Your task to perform on an android device: change keyboard looks Image 0: 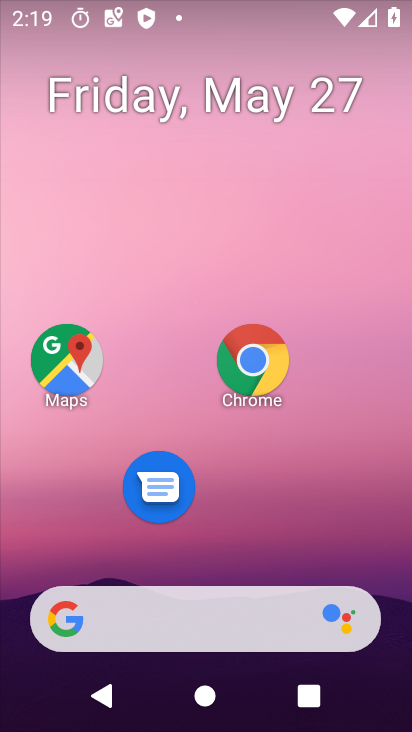
Step 0: drag from (247, 527) to (275, 104)
Your task to perform on an android device: change keyboard looks Image 1: 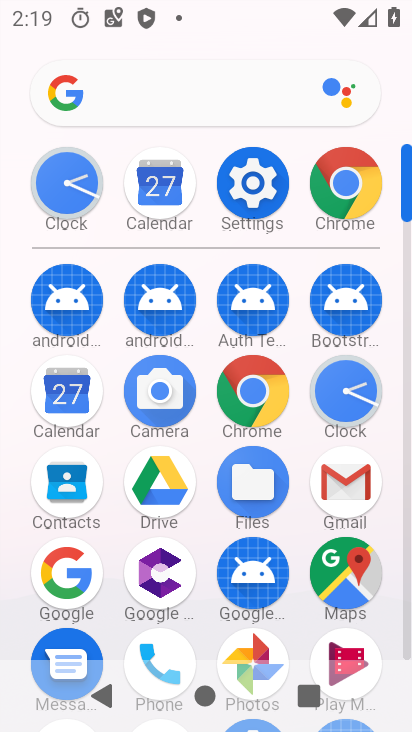
Step 1: click (258, 174)
Your task to perform on an android device: change keyboard looks Image 2: 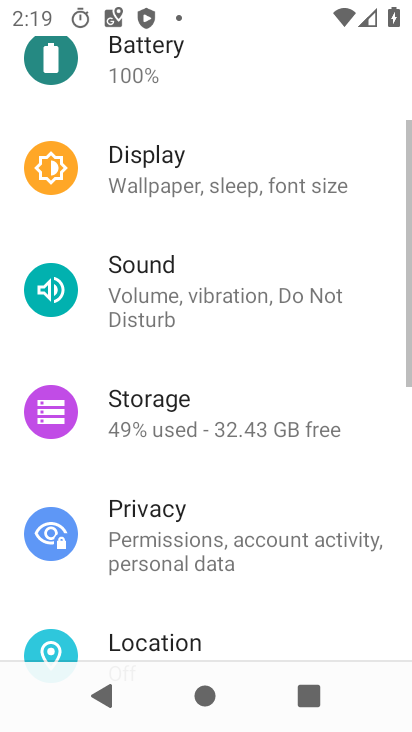
Step 2: drag from (267, 558) to (260, 84)
Your task to perform on an android device: change keyboard looks Image 3: 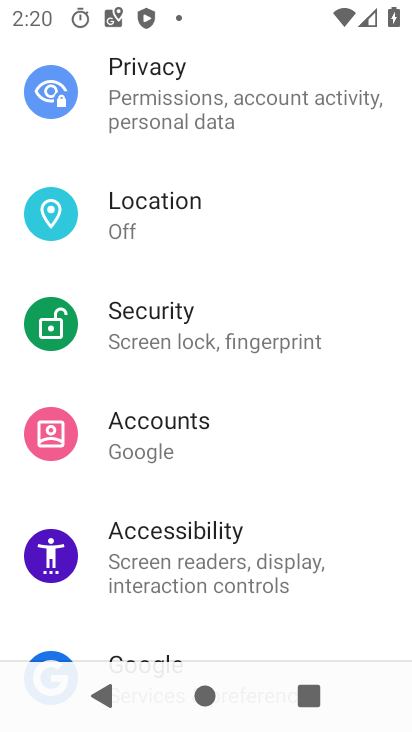
Step 3: drag from (211, 594) to (268, 276)
Your task to perform on an android device: change keyboard looks Image 4: 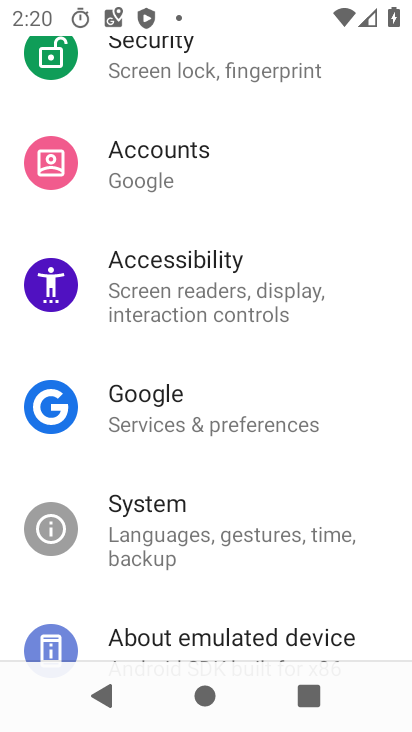
Step 4: click (210, 504)
Your task to perform on an android device: change keyboard looks Image 5: 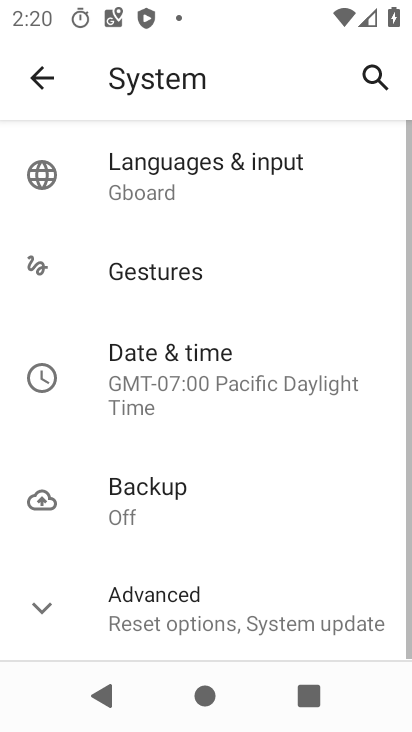
Step 5: drag from (284, 503) to (324, 237)
Your task to perform on an android device: change keyboard looks Image 6: 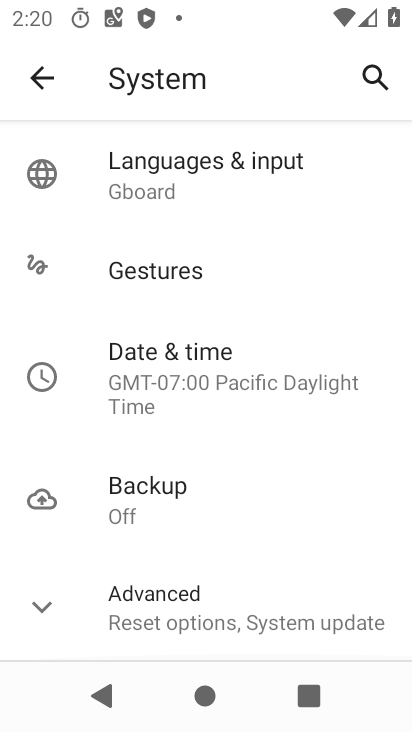
Step 6: click (272, 176)
Your task to perform on an android device: change keyboard looks Image 7: 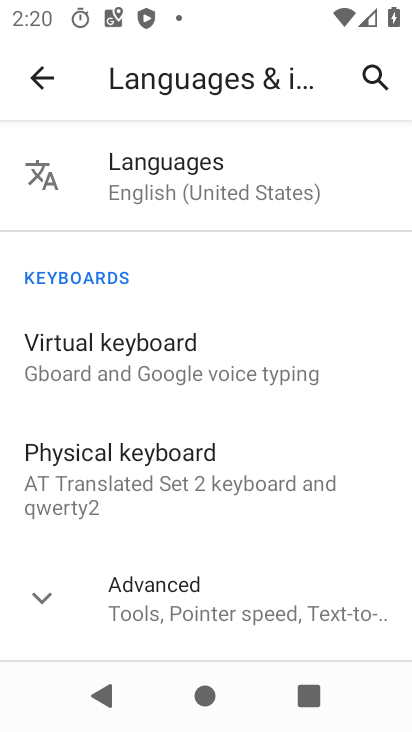
Step 7: click (120, 360)
Your task to perform on an android device: change keyboard looks Image 8: 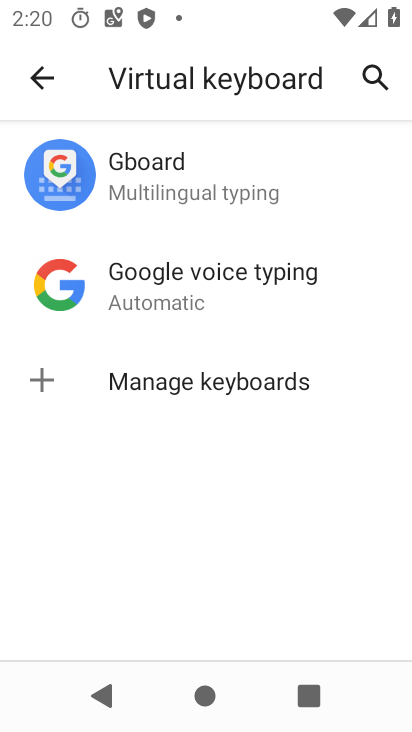
Step 8: click (163, 180)
Your task to perform on an android device: change keyboard looks Image 9: 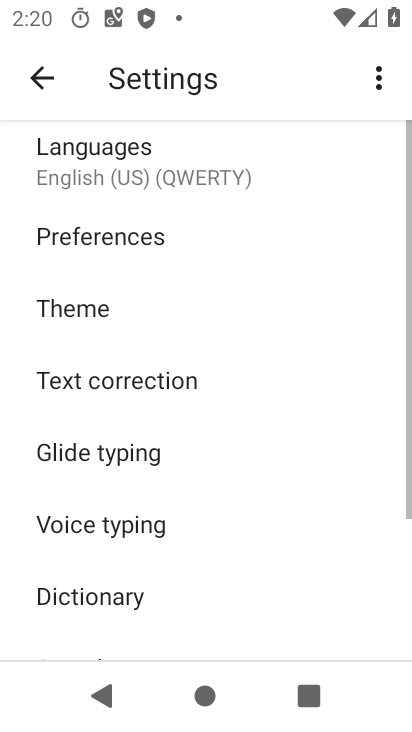
Step 9: click (114, 325)
Your task to perform on an android device: change keyboard looks Image 10: 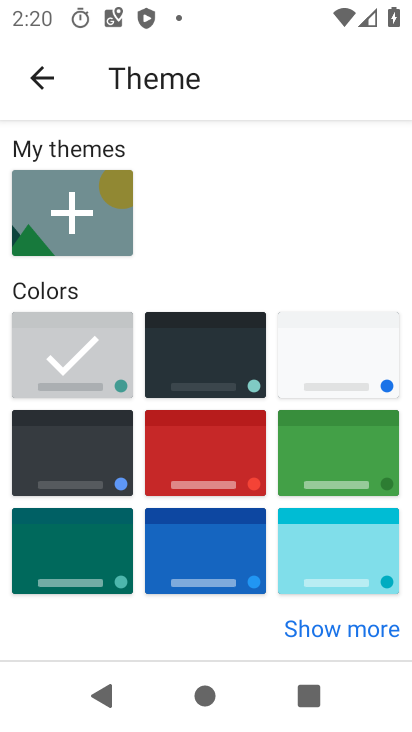
Step 10: click (187, 350)
Your task to perform on an android device: change keyboard looks Image 11: 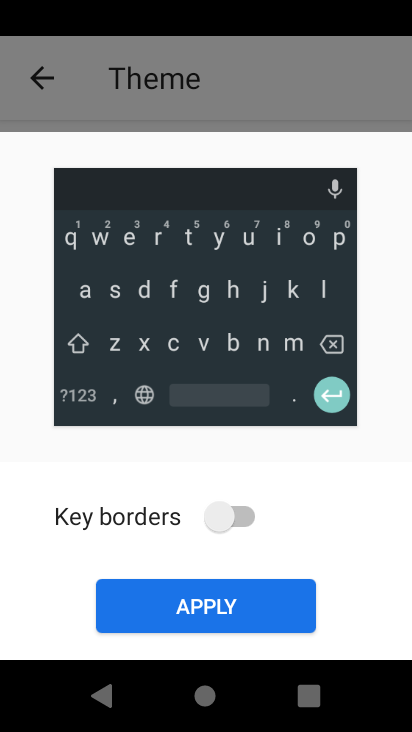
Step 11: click (211, 605)
Your task to perform on an android device: change keyboard looks Image 12: 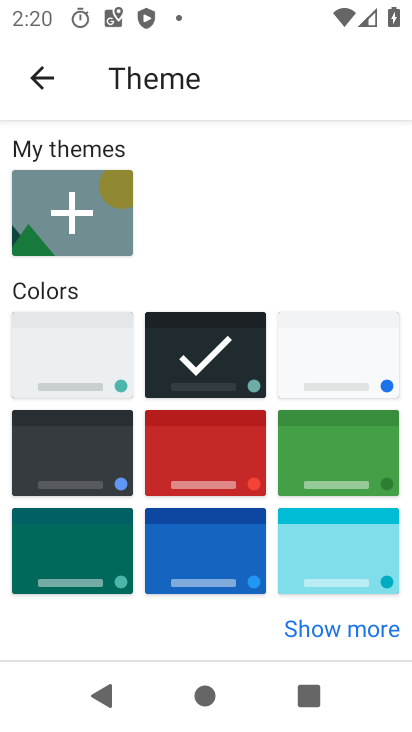
Step 12: task complete